Your task to perform on an android device: Open Youtube and go to "Your channel" Image 0: 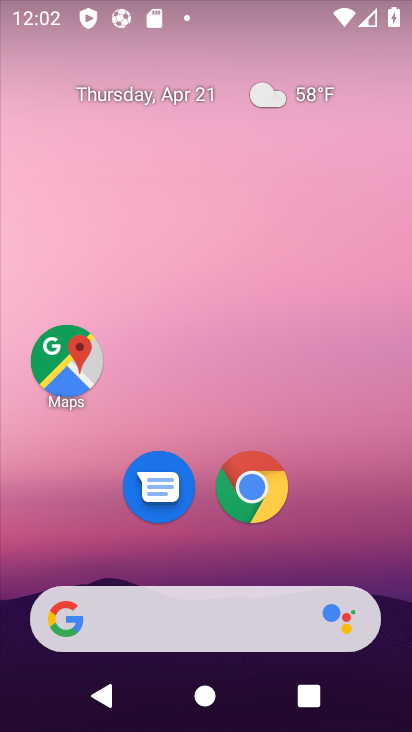
Step 0: drag from (390, 573) to (365, 4)
Your task to perform on an android device: Open Youtube and go to "Your channel" Image 1: 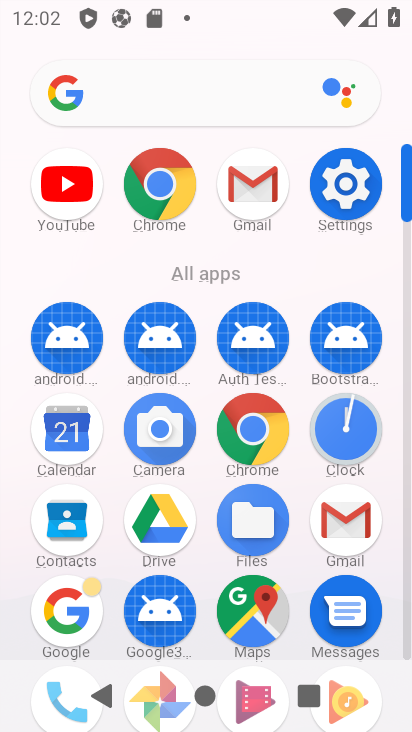
Step 1: click (63, 186)
Your task to perform on an android device: Open Youtube and go to "Your channel" Image 2: 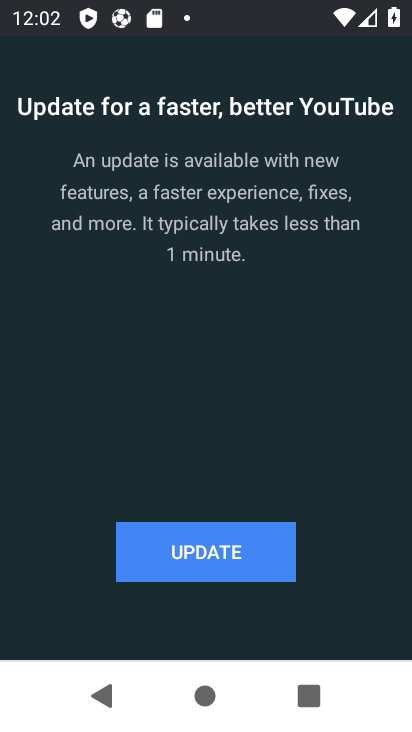
Step 2: click (217, 548)
Your task to perform on an android device: Open Youtube and go to "Your channel" Image 3: 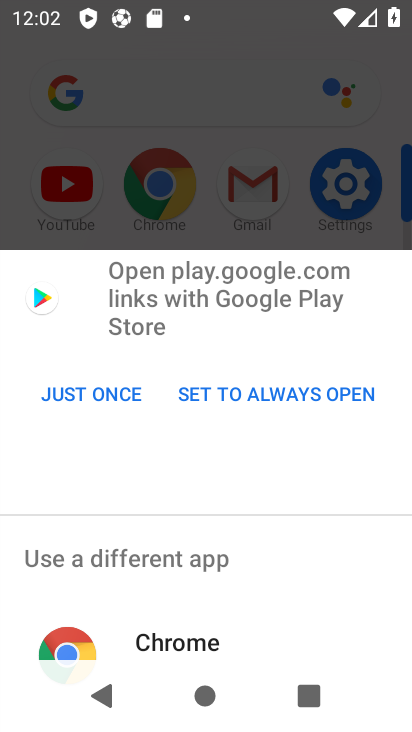
Step 3: drag from (162, 550) to (155, 333)
Your task to perform on an android device: Open Youtube and go to "Your channel" Image 4: 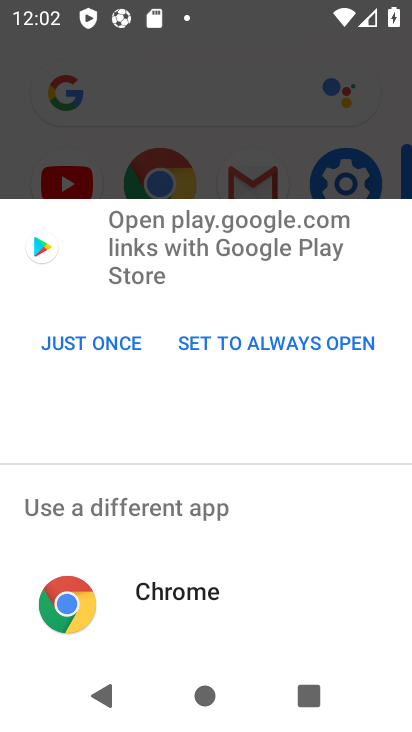
Step 4: click (77, 354)
Your task to perform on an android device: Open Youtube and go to "Your channel" Image 5: 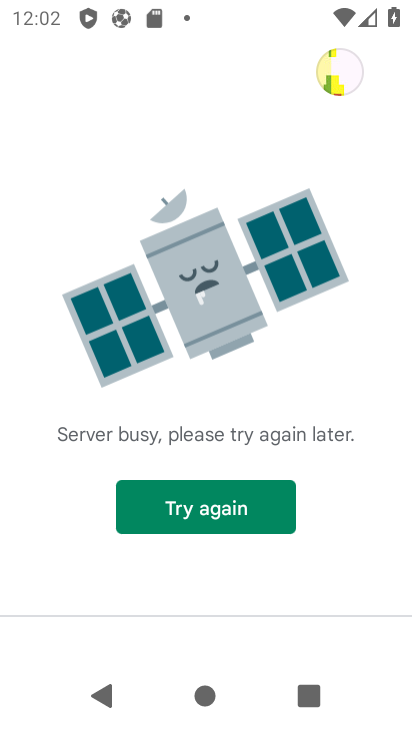
Step 5: click (192, 505)
Your task to perform on an android device: Open Youtube and go to "Your channel" Image 6: 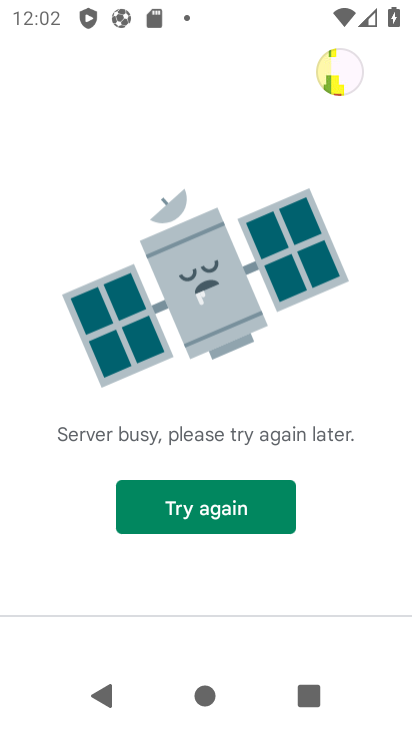
Step 6: task complete